Your task to perform on an android device: Empty the shopping cart on bestbuy. Search for "razer thresher" on bestbuy, select the first entry, add it to the cart, then select checkout. Image 0: 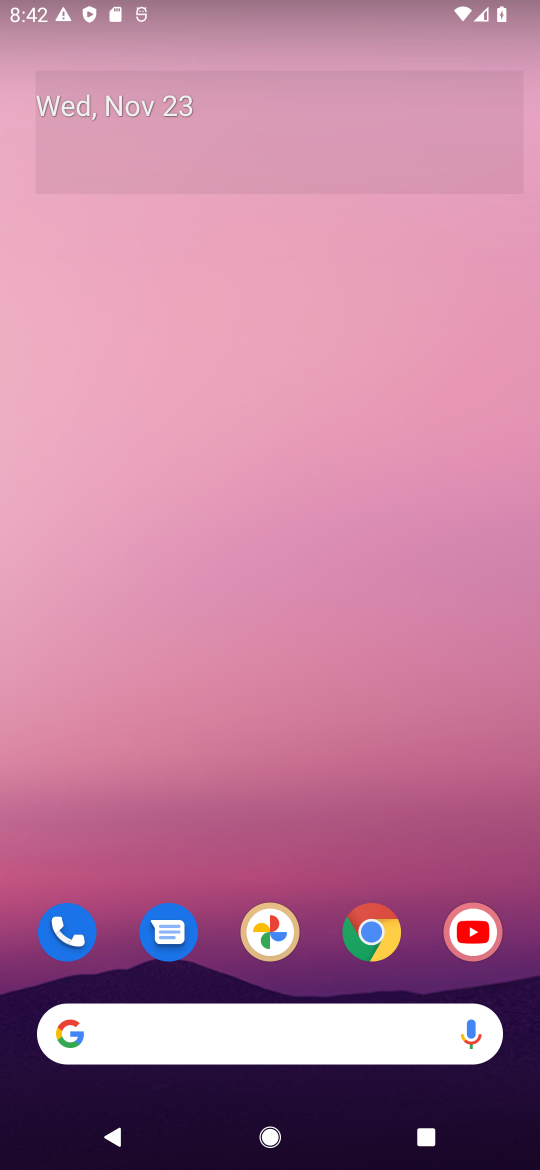
Step 0: press home button
Your task to perform on an android device: Empty the shopping cart on bestbuy. Search for "razer thresher" on bestbuy, select the first entry, add it to the cart, then select checkout. Image 1: 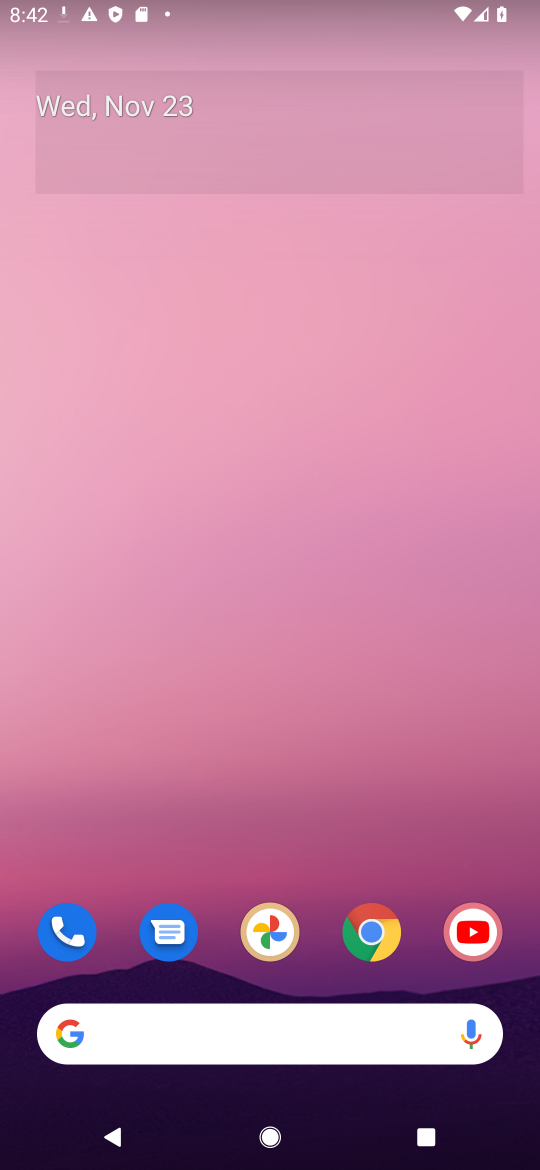
Step 1: click (363, 943)
Your task to perform on an android device: Empty the shopping cart on bestbuy. Search for "razer thresher" on bestbuy, select the first entry, add it to the cart, then select checkout. Image 2: 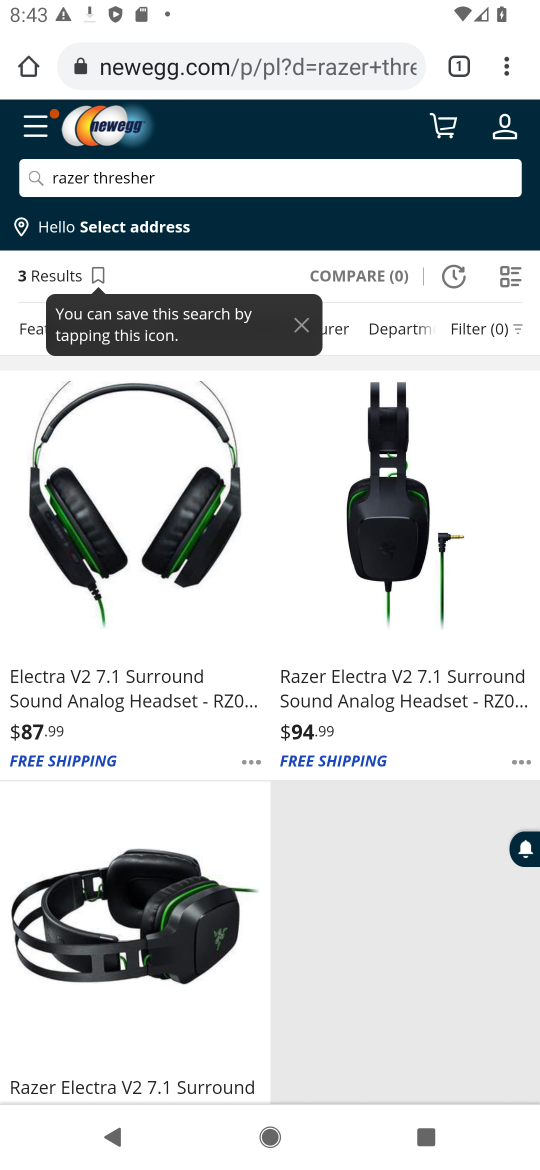
Step 2: click (236, 70)
Your task to perform on an android device: Empty the shopping cart on bestbuy. Search for "razer thresher" on bestbuy, select the first entry, add it to the cart, then select checkout. Image 3: 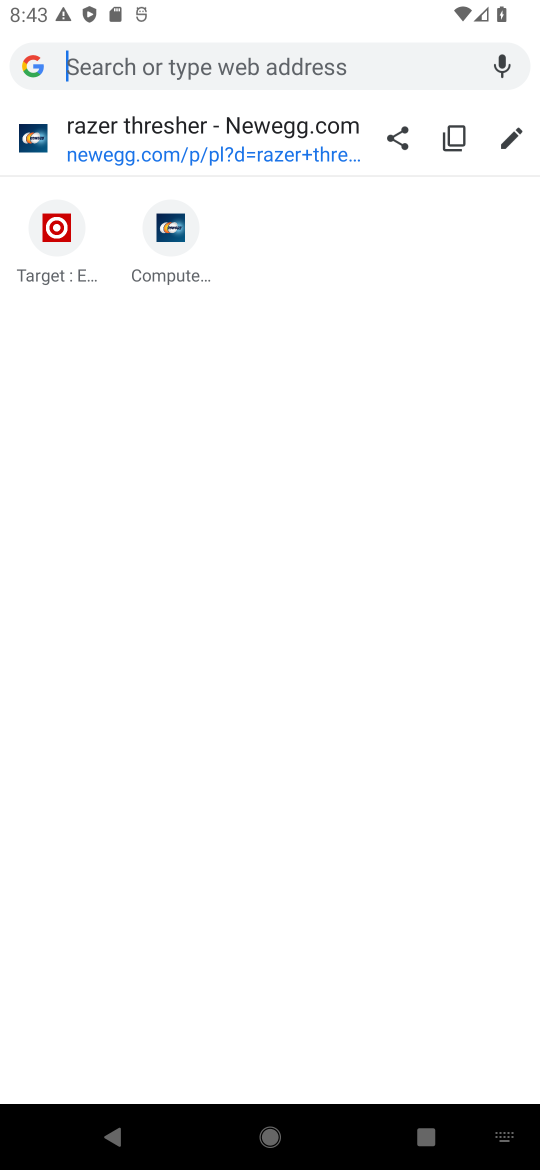
Step 3: type "bestbuy"
Your task to perform on an android device: Empty the shopping cart on bestbuy. Search for "razer thresher" on bestbuy, select the first entry, add it to the cart, then select checkout. Image 4: 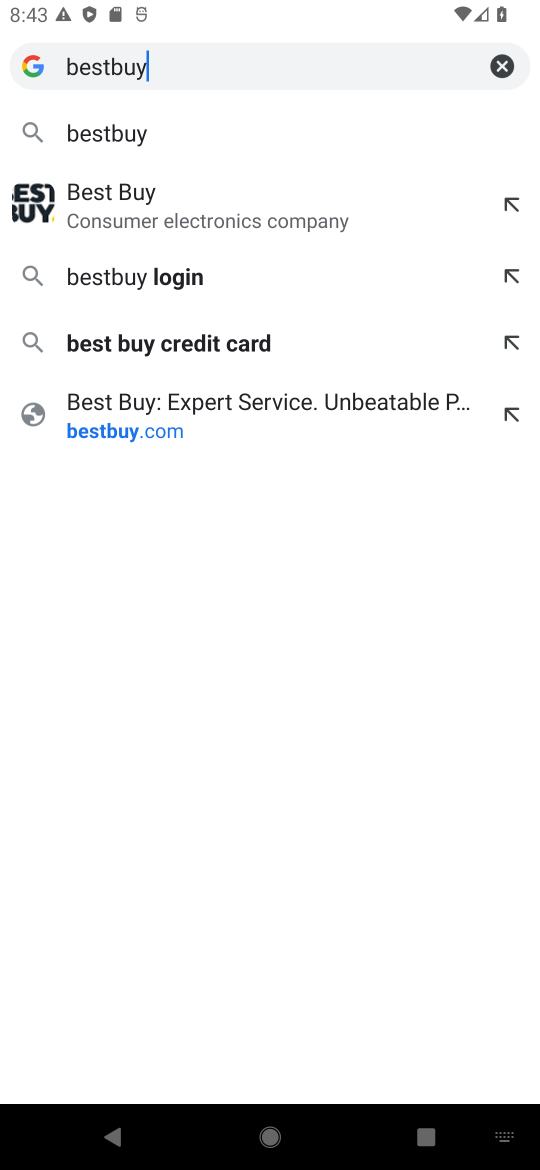
Step 4: click (178, 410)
Your task to perform on an android device: Empty the shopping cart on bestbuy. Search for "razer thresher" on bestbuy, select the first entry, add it to the cart, then select checkout. Image 5: 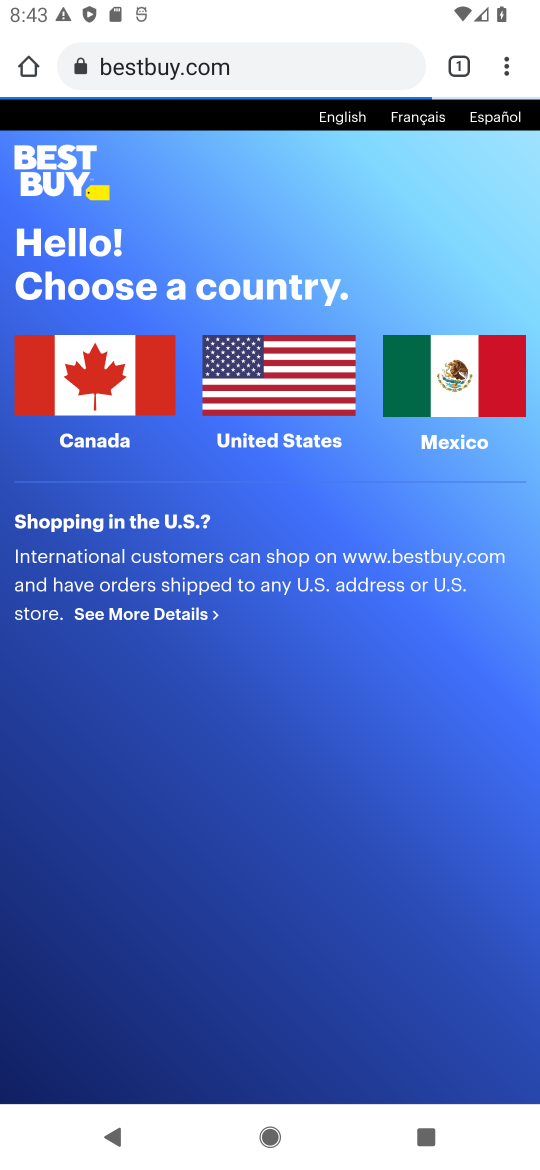
Step 5: click (272, 393)
Your task to perform on an android device: Empty the shopping cart on bestbuy. Search for "razer thresher" on bestbuy, select the first entry, add it to the cart, then select checkout. Image 6: 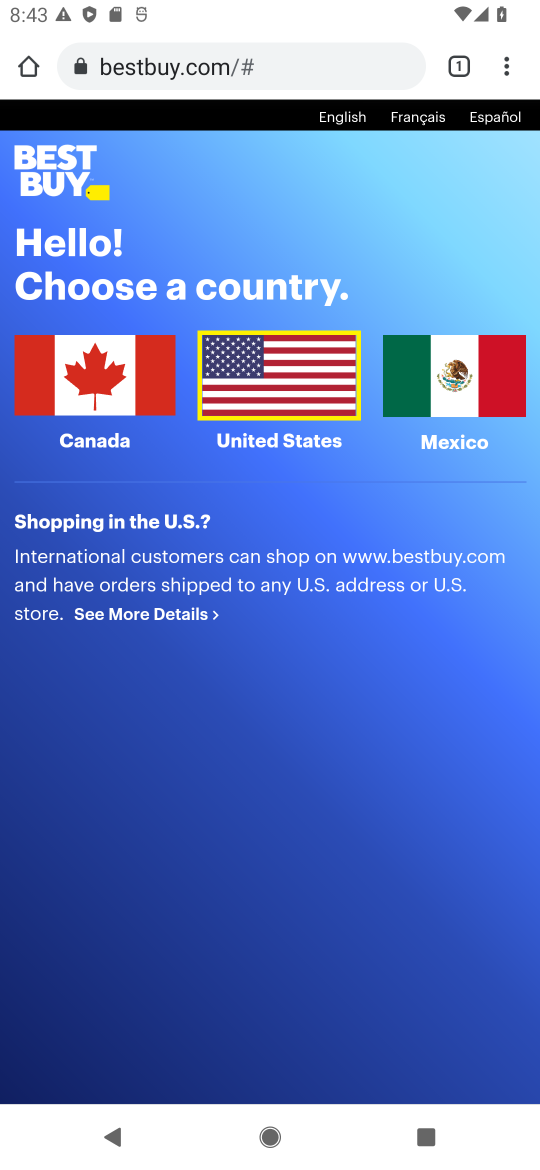
Step 6: click (310, 388)
Your task to perform on an android device: Empty the shopping cart on bestbuy. Search for "razer thresher" on bestbuy, select the first entry, add it to the cart, then select checkout. Image 7: 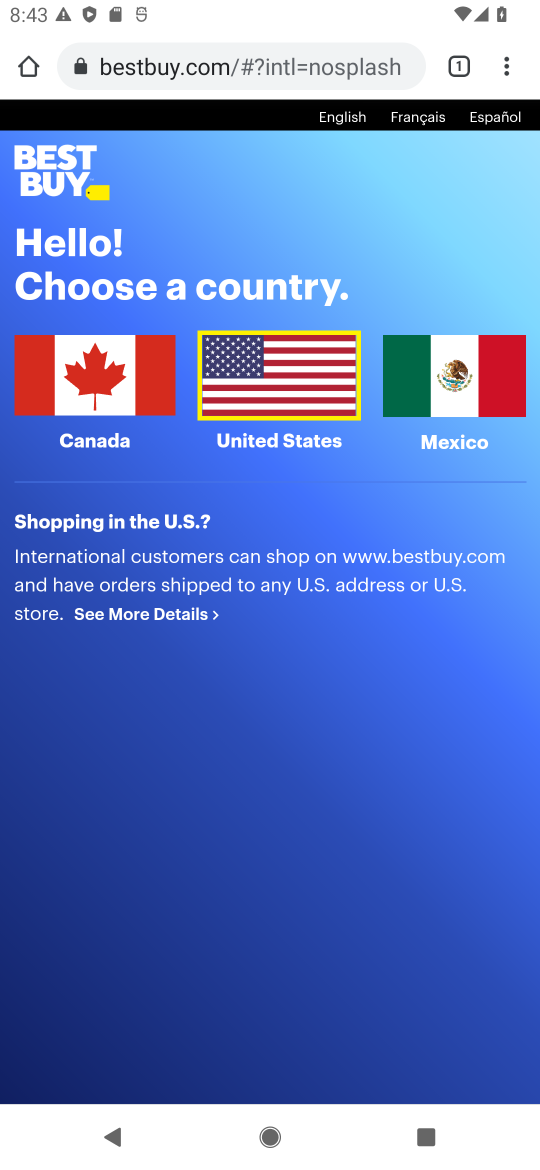
Step 7: click (310, 388)
Your task to perform on an android device: Empty the shopping cart on bestbuy. Search for "razer thresher" on bestbuy, select the first entry, add it to the cart, then select checkout. Image 8: 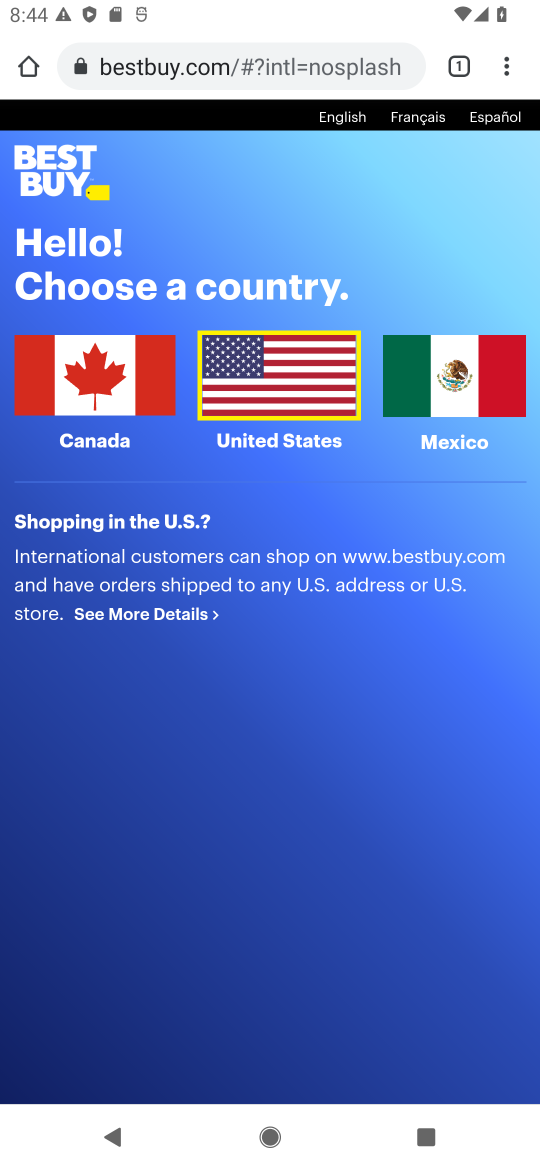
Step 8: click (310, 388)
Your task to perform on an android device: Empty the shopping cart on bestbuy. Search for "razer thresher" on bestbuy, select the first entry, add it to the cart, then select checkout. Image 9: 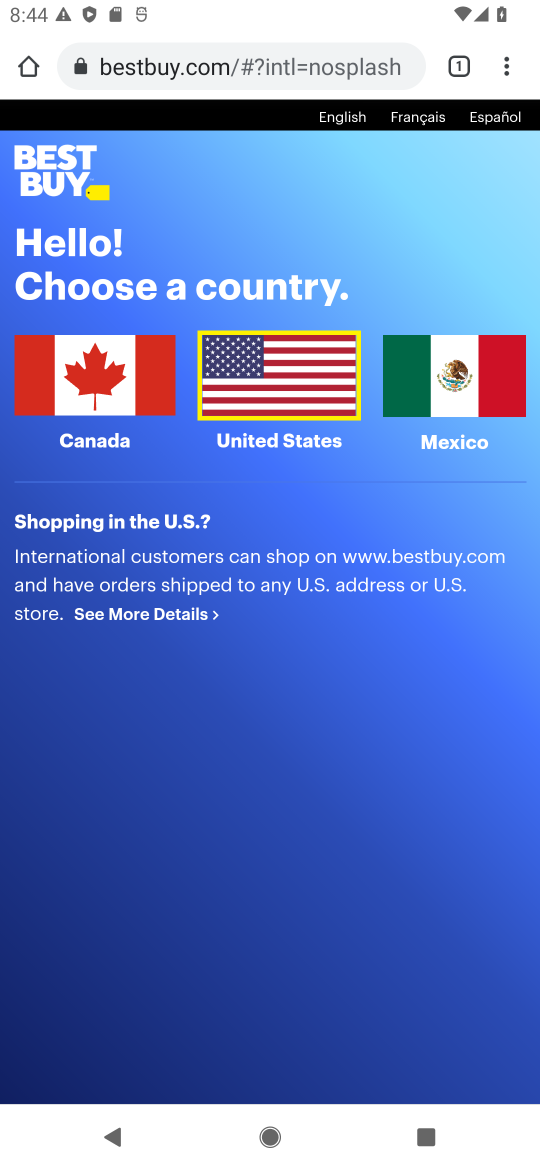
Step 9: click (310, 388)
Your task to perform on an android device: Empty the shopping cart on bestbuy. Search for "razer thresher" on bestbuy, select the first entry, add it to the cart, then select checkout. Image 10: 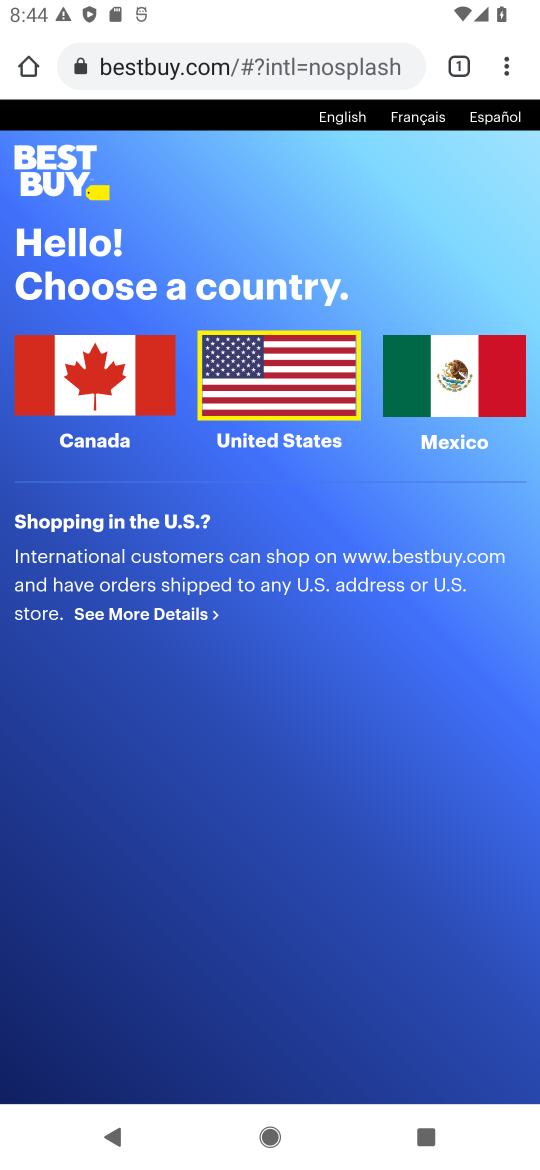
Step 10: click (314, 434)
Your task to perform on an android device: Empty the shopping cart on bestbuy. Search for "razer thresher" on bestbuy, select the first entry, add it to the cart, then select checkout. Image 11: 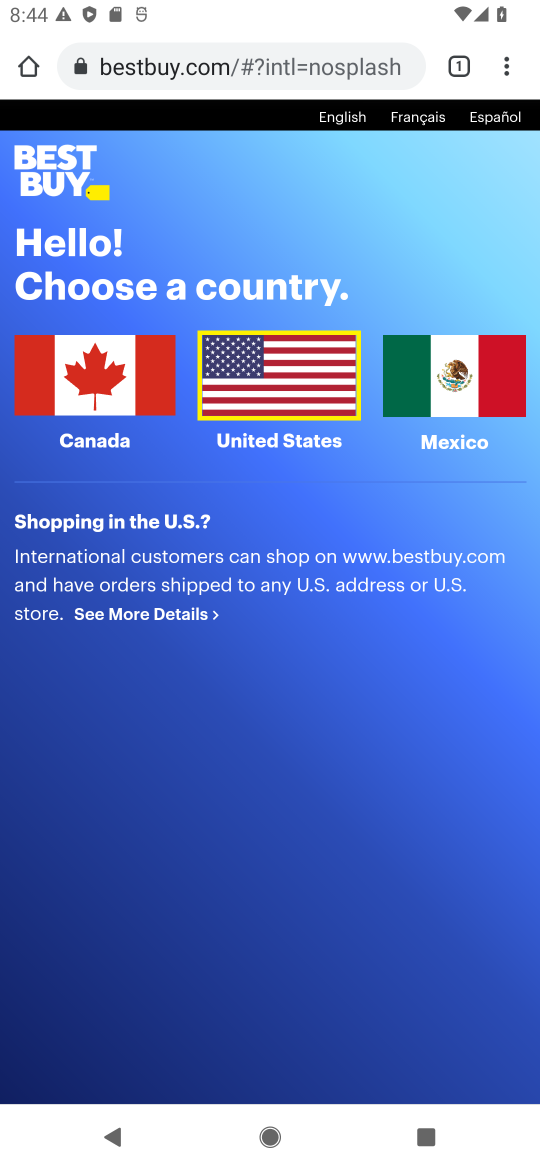
Step 11: click (314, 434)
Your task to perform on an android device: Empty the shopping cart on bestbuy. Search for "razer thresher" on bestbuy, select the first entry, add it to the cart, then select checkout. Image 12: 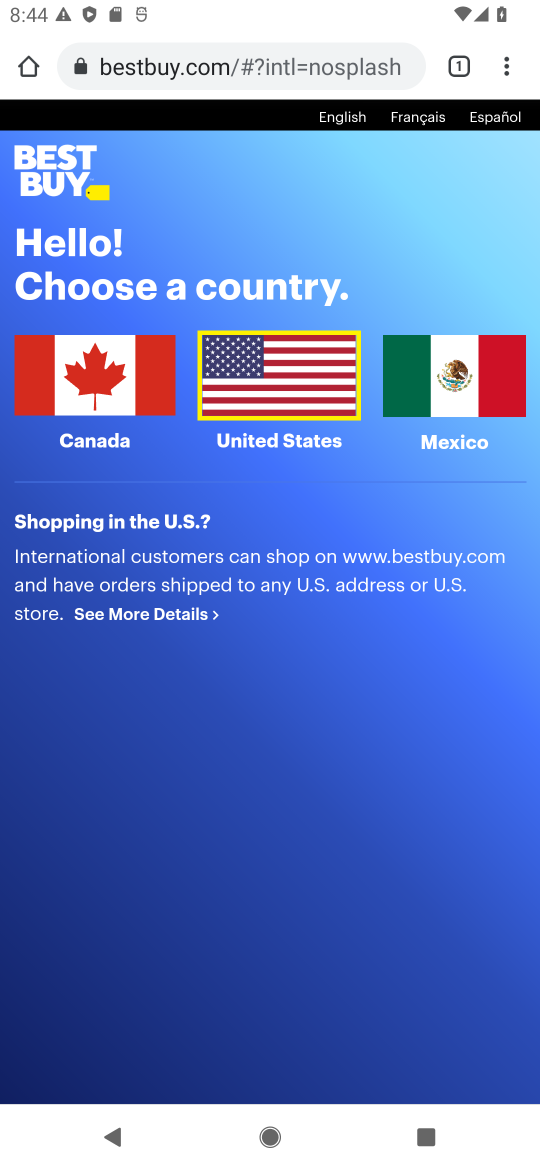
Step 12: click (314, 434)
Your task to perform on an android device: Empty the shopping cart on bestbuy. Search for "razer thresher" on bestbuy, select the first entry, add it to the cart, then select checkout. Image 13: 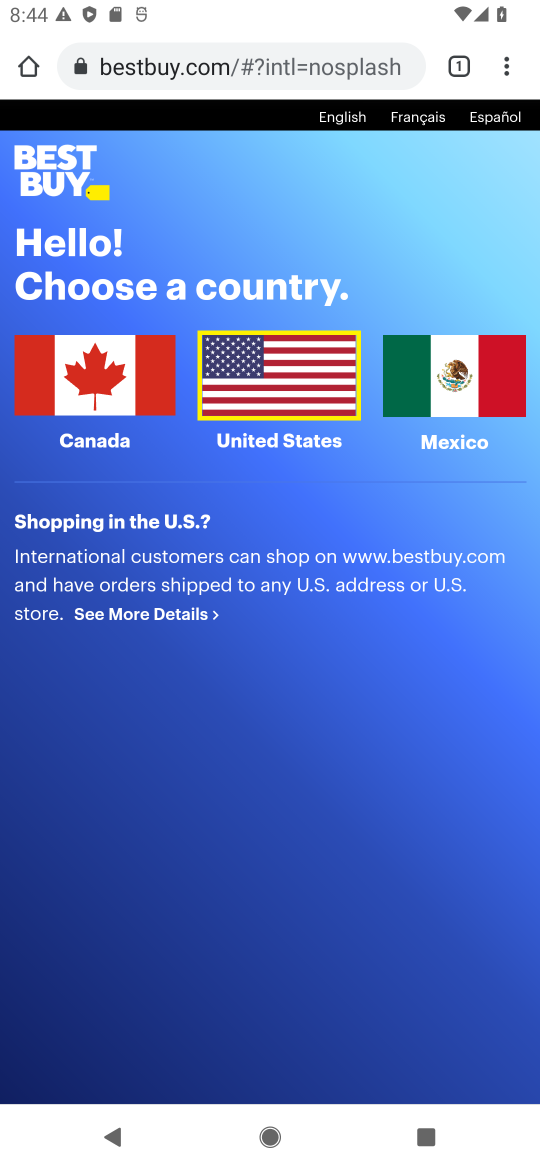
Step 13: task complete